Your task to perform on an android device: Open calendar and show me the second week of next month Image 0: 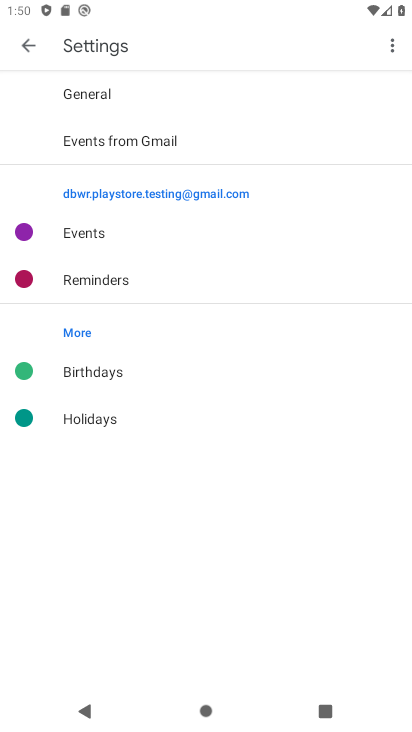
Step 0: press home button
Your task to perform on an android device: Open calendar and show me the second week of next month Image 1: 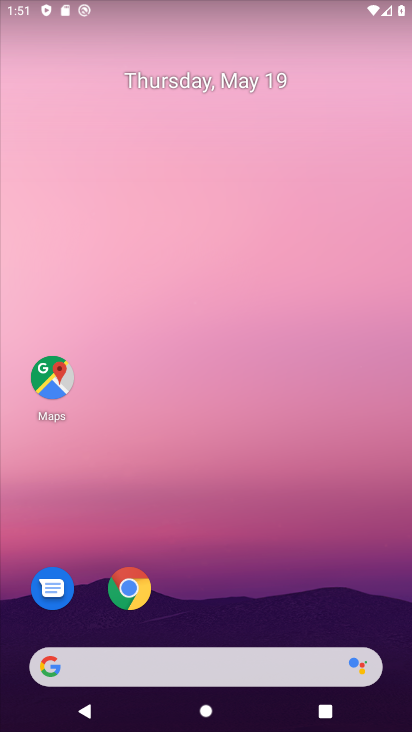
Step 1: drag from (229, 548) to (268, 53)
Your task to perform on an android device: Open calendar and show me the second week of next month Image 2: 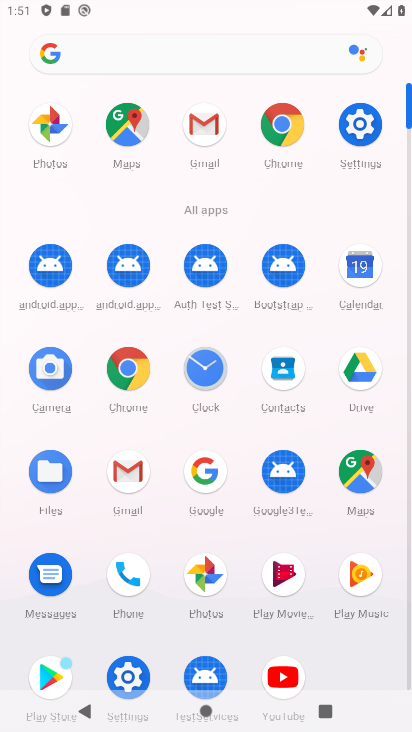
Step 2: click (368, 264)
Your task to perform on an android device: Open calendar and show me the second week of next month Image 3: 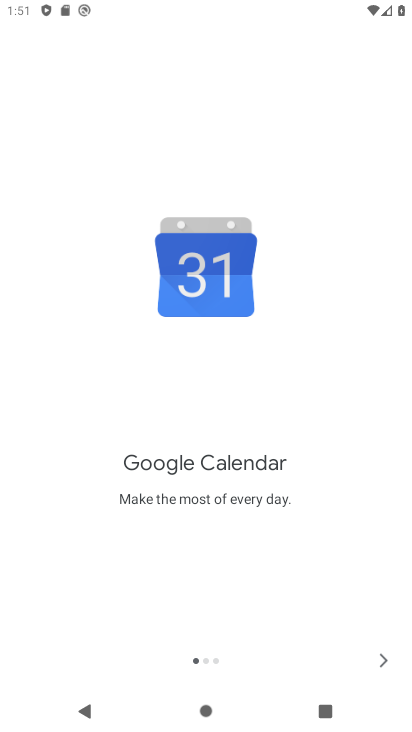
Step 3: click (381, 660)
Your task to perform on an android device: Open calendar and show me the second week of next month Image 4: 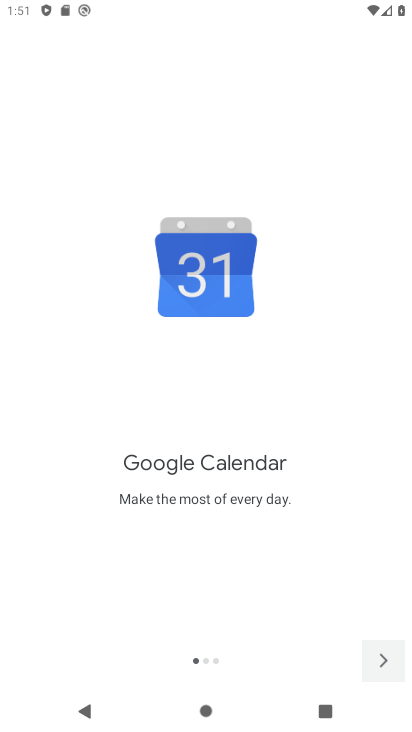
Step 4: click (381, 660)
Your task to perform on an android device: Open calendar and show me the second week of next month Image 5: 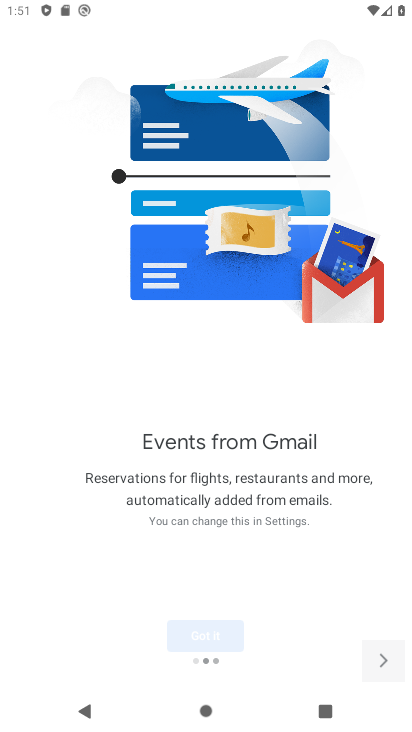
Step 5: click (380, 659)
Your task to perform on an android device: Open calendar and show me the second week of next month Image 6: 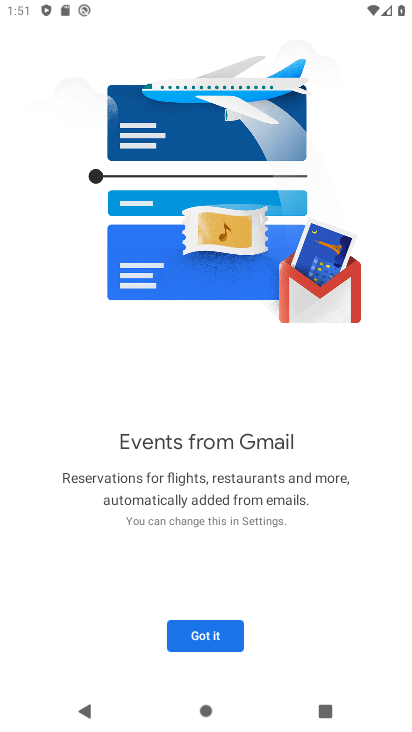
Step 6: click (380, 659)
Your task to perform on an android device: Open calendar and show me the second week of next month Image 7: 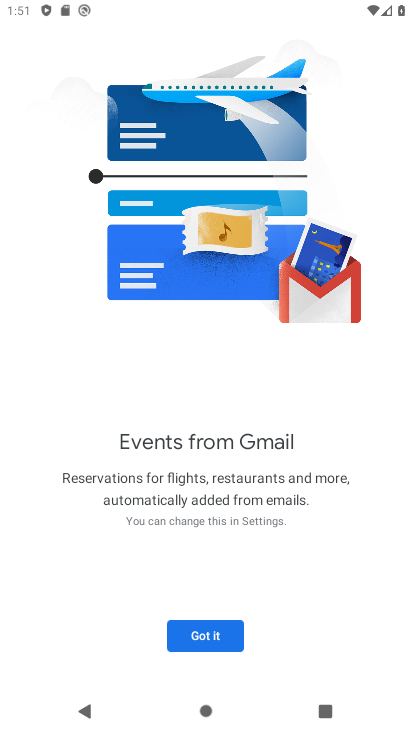
Step 7: click (236, 622)
Your task to perform on an android device: Open calendar and show me the second week of next month Image 8: 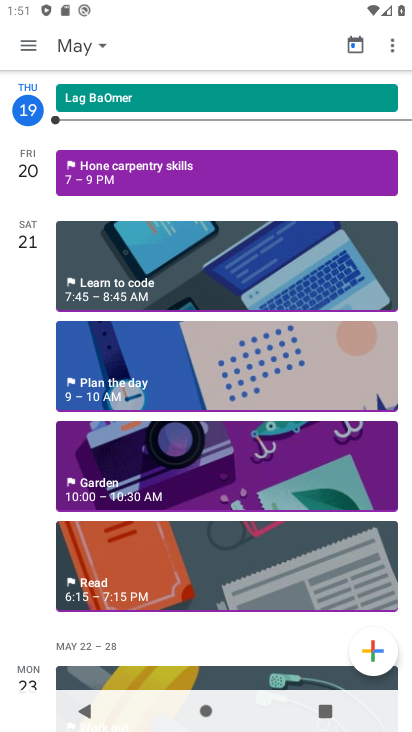
Step 8: click (81, 46)
Your task to perform on an android device: Open calendar and show me the second week of next month Image 9: 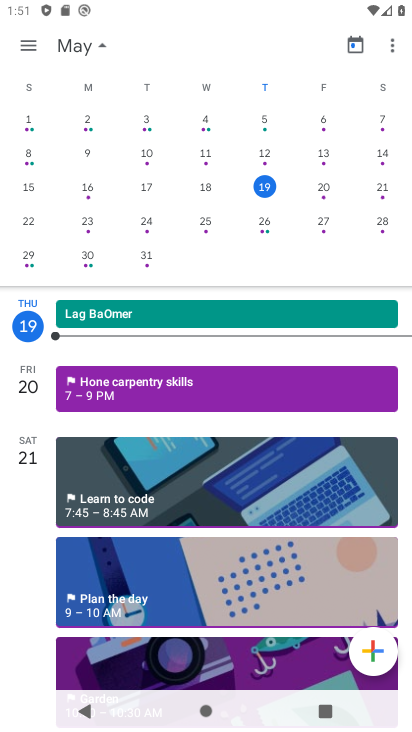
Step 9: drag from (376, 190) to (22, 167)
Your task to perform on an android device: Open calendar and show me the second week of next month Image 10: 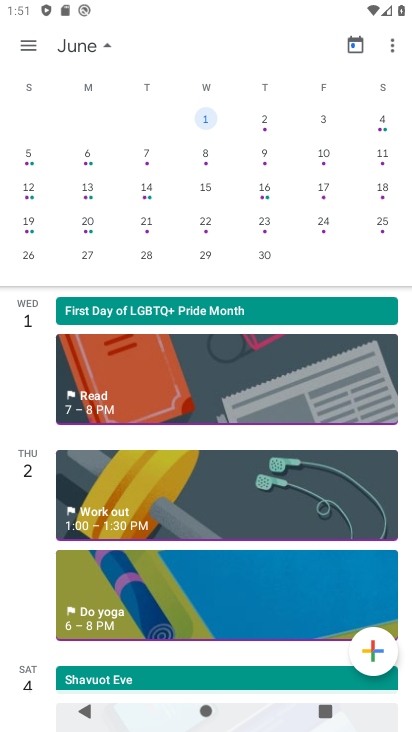
Step 10: click (33, 185)
Your task to perform on an android device: Open calendar and show me the second week of next month Image 11: 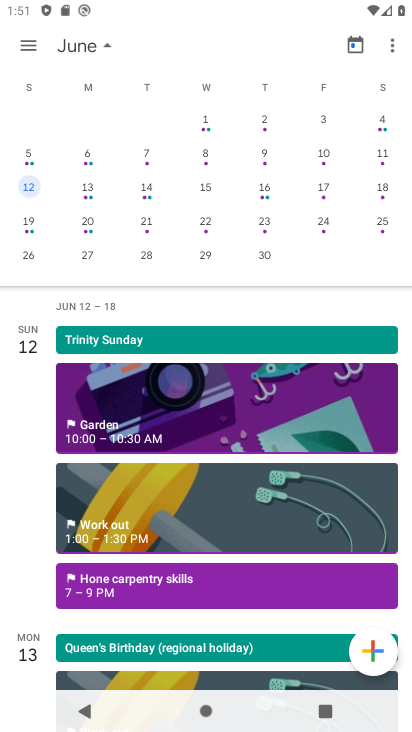
Step 11: click (27, 43)
Your task to perform on an android device: Open calendar and show me the second week of next month Image 12: 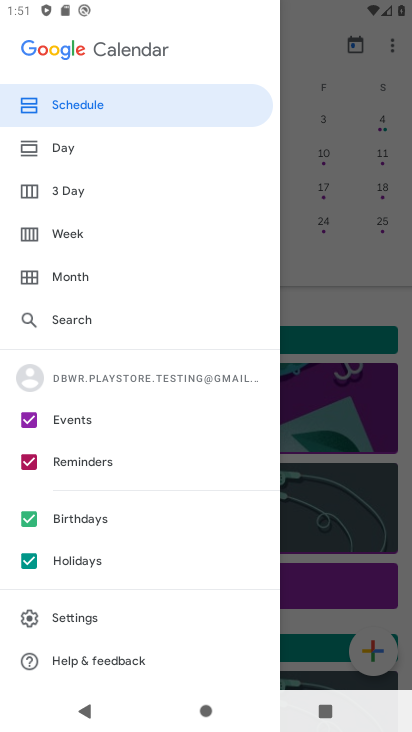
Step 12: click (62, 236)
Your task to perform on an android device: Open calendar and show me the second week of next month Image 13: 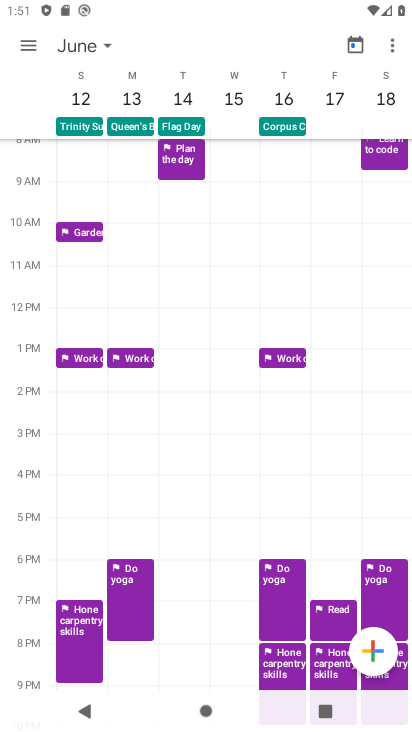
Step 13: task complete